Your task to perform on an android device: What's on my calendar tomorrow? Image 0: 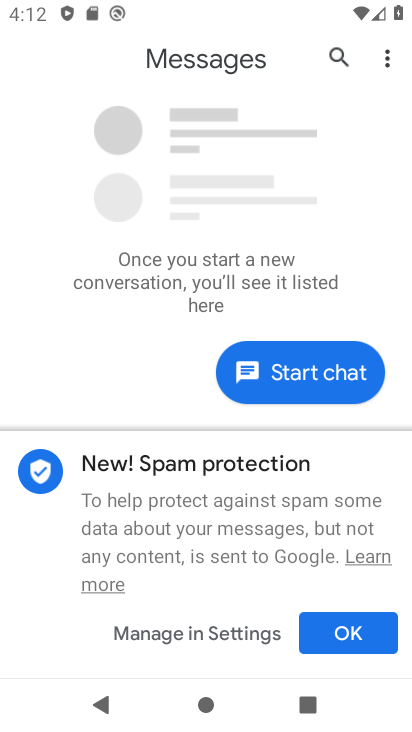
Step 0: drag from (227, 601) to (218, 260)
Your task to perform on an android device: What's on my calendar tomorrow? Image 1: 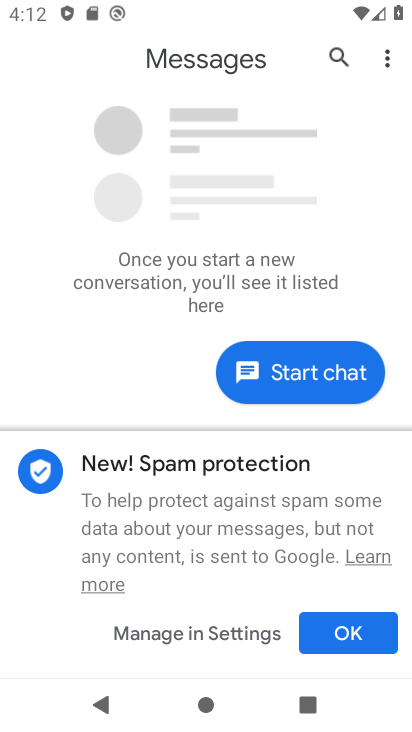
Step 1: press home button
Your task to perform on an android device: What's on my calendar tomorrow? Image 2: 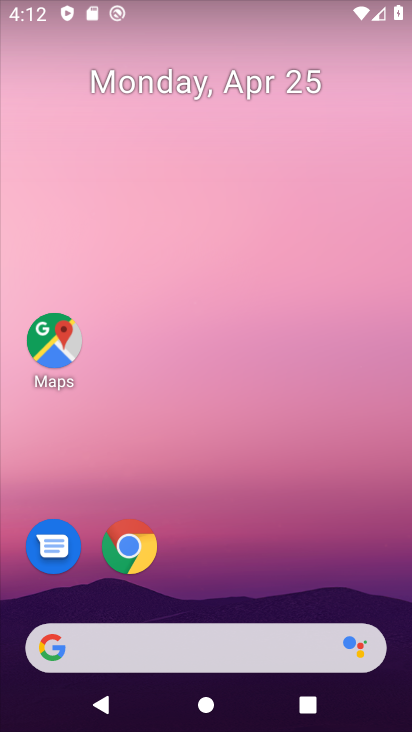
Step 2: drag from (221, 612) to (158, 8)
Your task to perform on an android device: What's on my calendar tomorrow? Image 3: 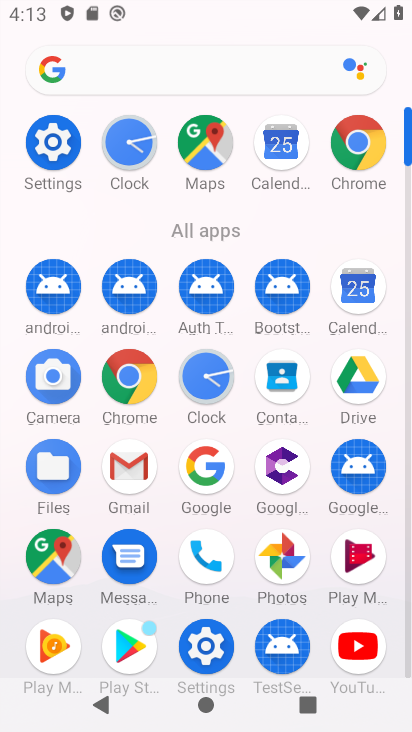
Step 3: click (361, 289)
Your task to perform on an android device: What's on my calendar tomorrow? Image 4: 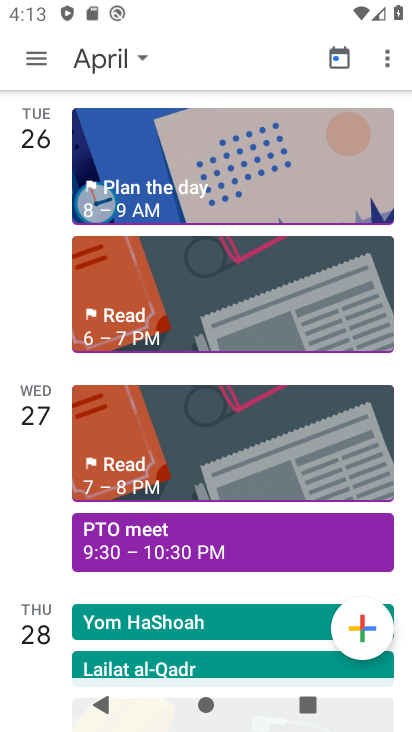
Step 4: click (33, 129)
Your task to perform on an android device: What's on my calendar tomorrow? Image 5: 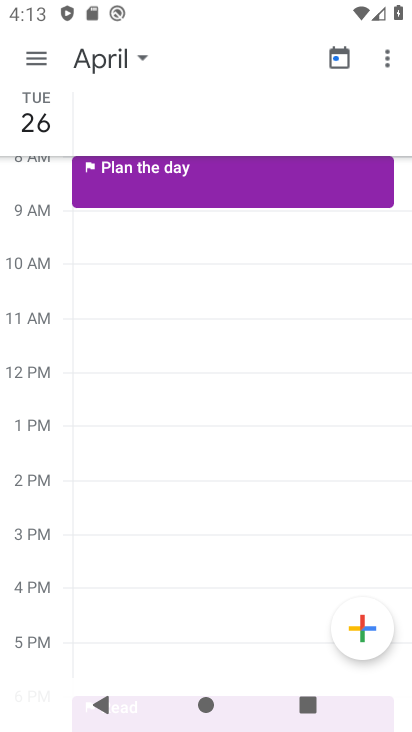
Step 5: task complete